Your task to perform on an android device: How old is the earth? Image 0: 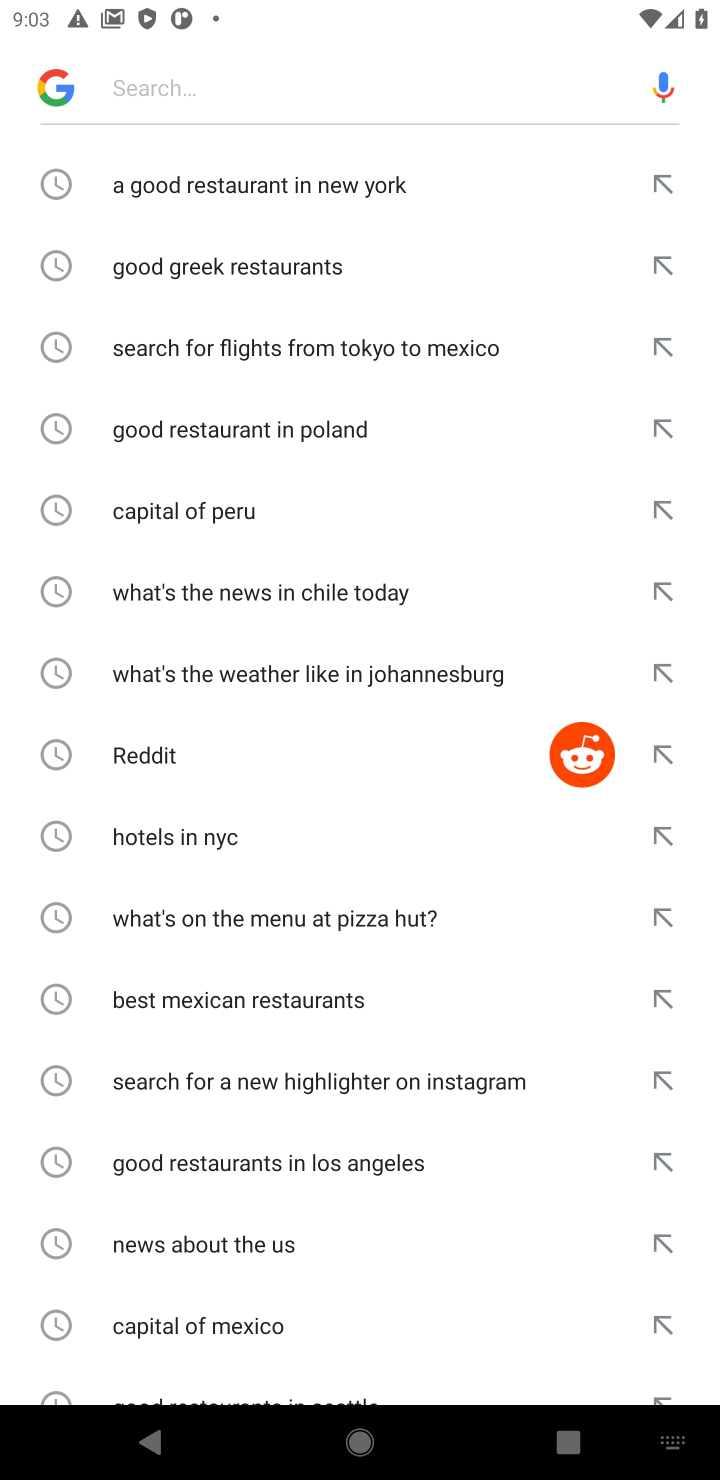
Step 0: press home button
Your task to perform on an android device: How old is the earth? Image 1: 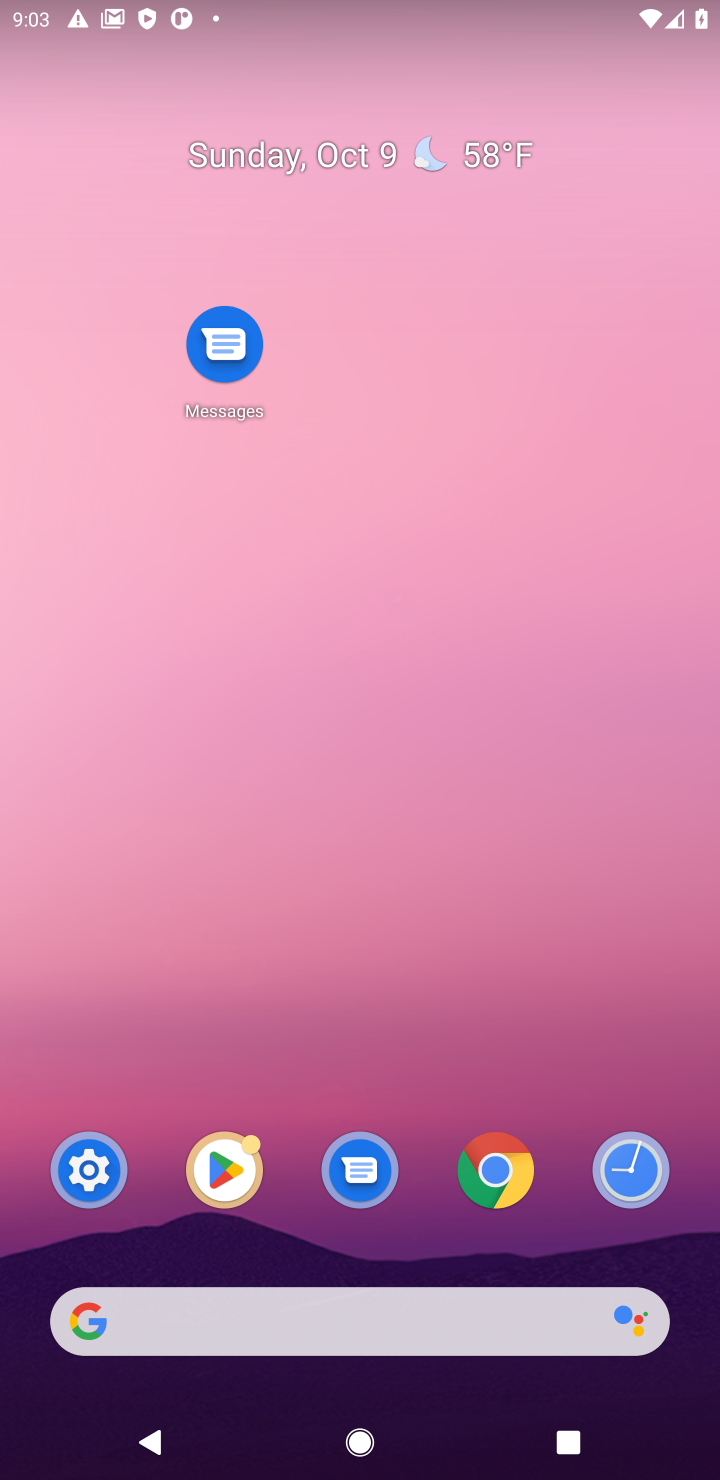
Step 1: click (371, 1320)
Your task to perform on an android device: How old is the earth? Image 2: 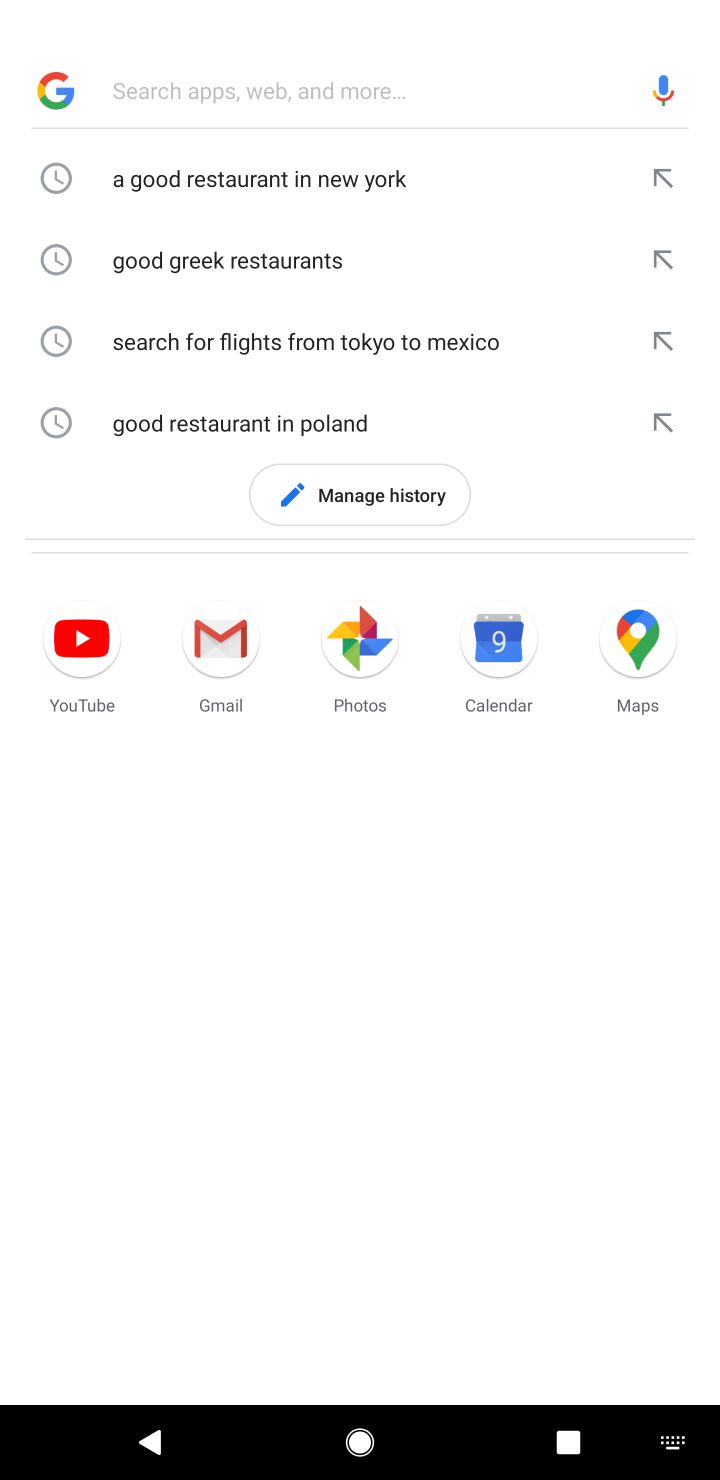
Step 2: type "How old is the earth?"
Your task to perform on an android device: How old is the earth? Image 3: 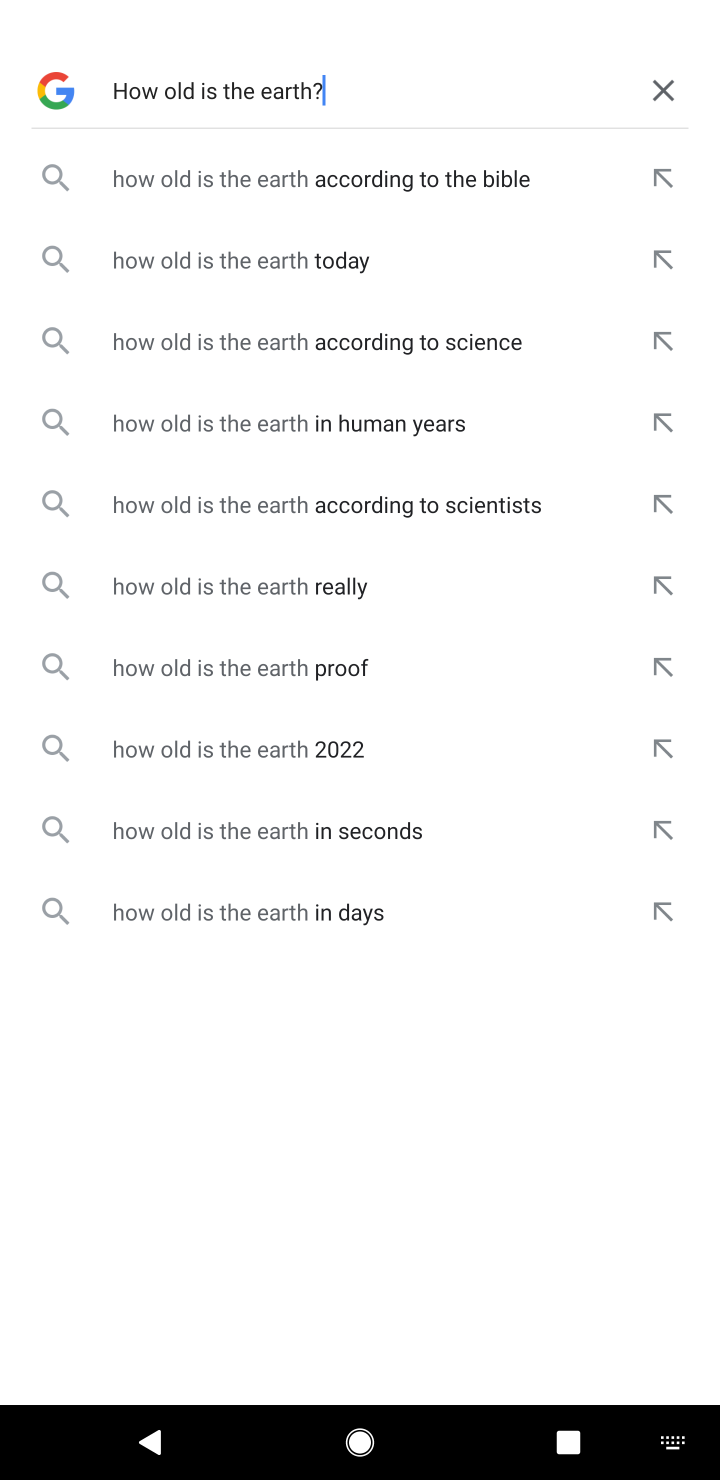
Step 3: click (313, 262)
Your task to perform on an android device: How old is the earth? Image 4: 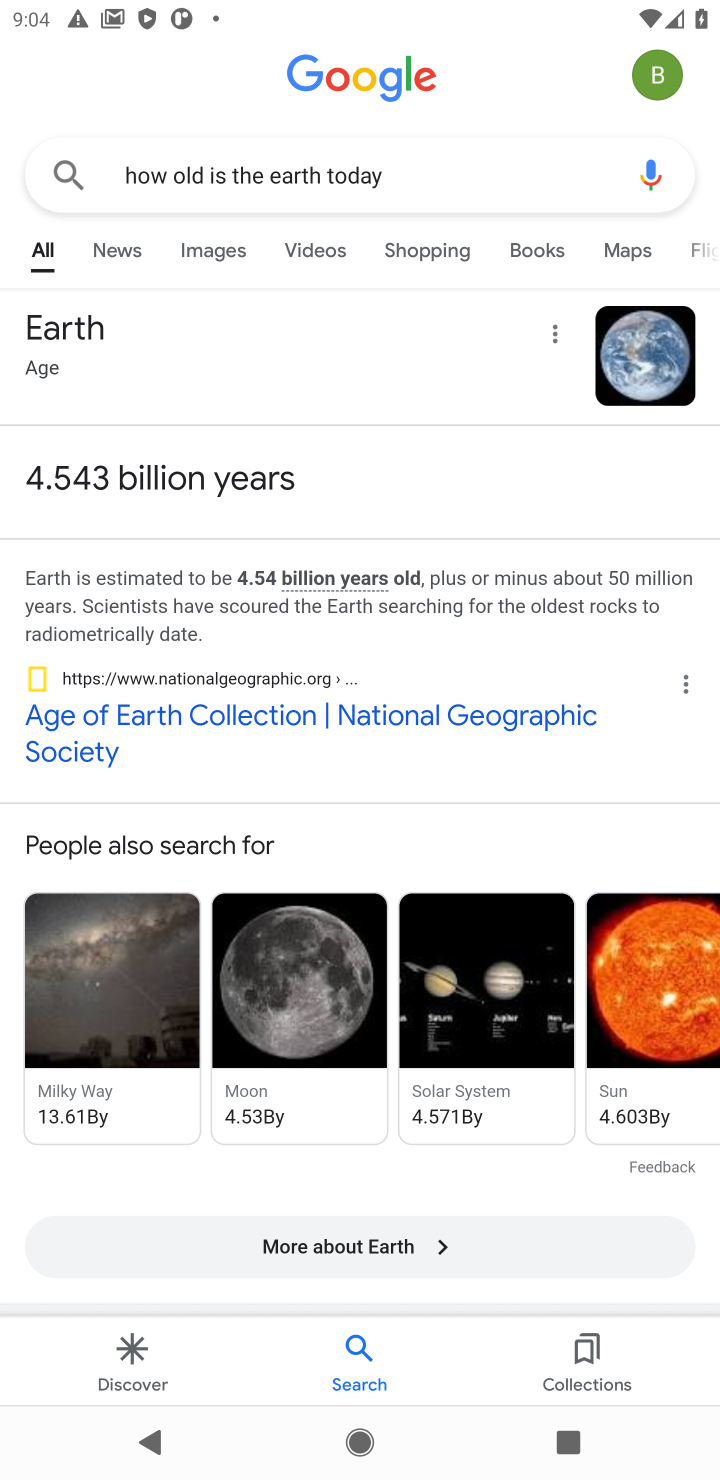
Step 4: task complete